Your task to perform on an android device: Search for seafood restaurants on Google Maps Image 0: 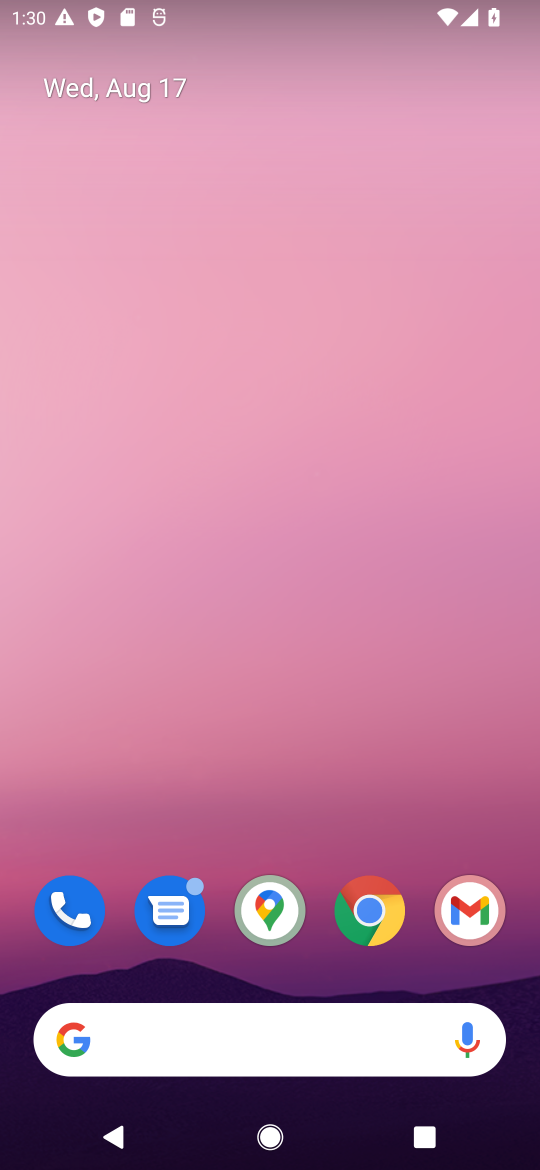
Step 0: click (269, 914)
Your task to perform on an android device: Search for seafood restaurants on Google Maps Image 1: 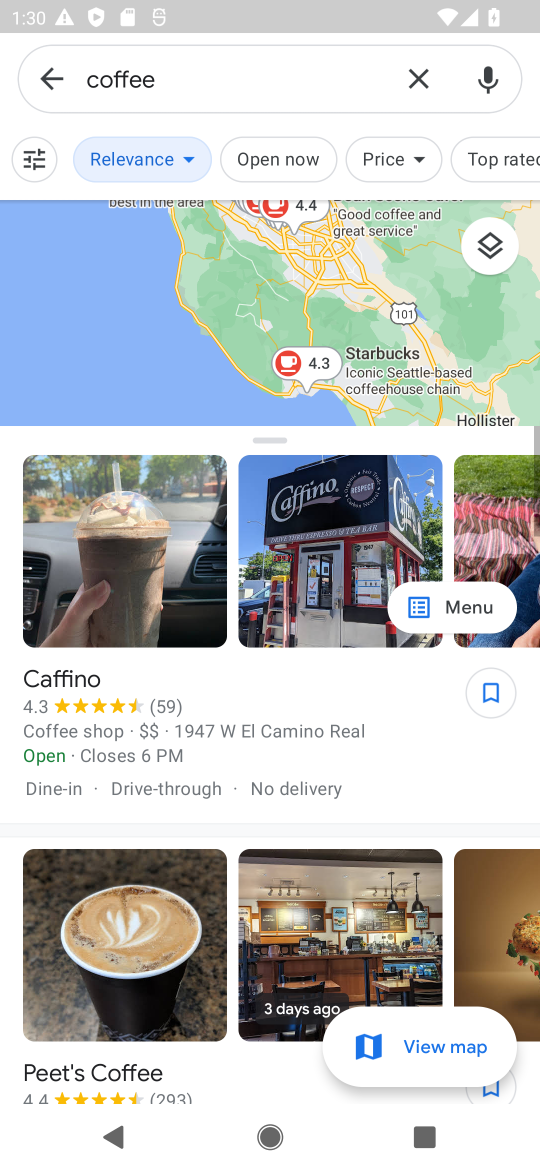
Step 1: click (402, 85)
Your task to perform on an android device: Search for seafood restaurants on Google Maps Image 2: 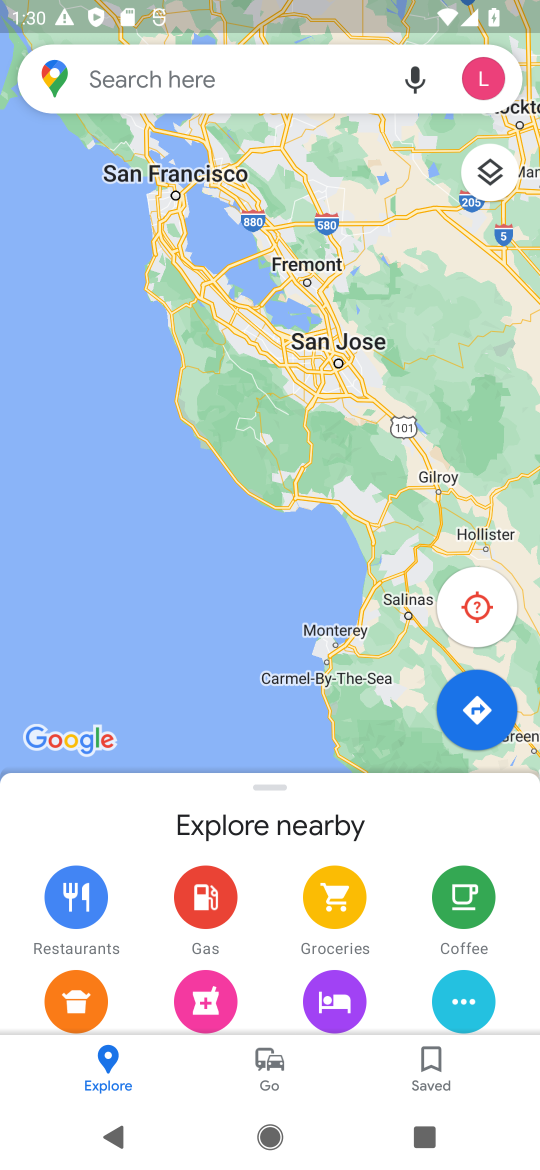
Step 2: click (168, 71)
Your task to perform on an android device: Search for seafood restaurants on Google Maps Image 3: 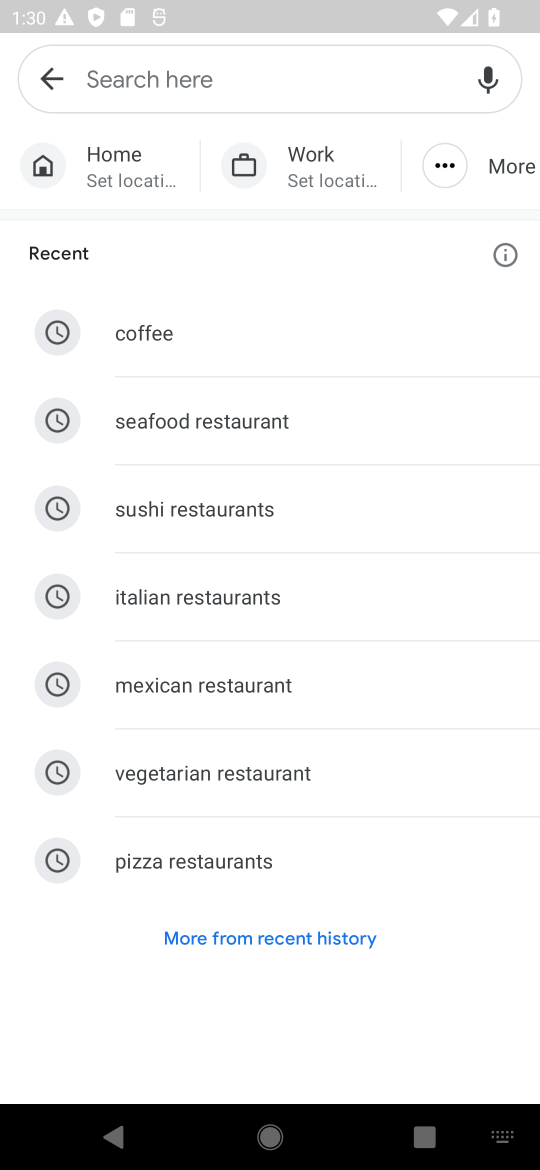
Step 3: click (142, 419)
Your task to perform on an android device: Search for seafood restaurants on Google Maps Image 4: 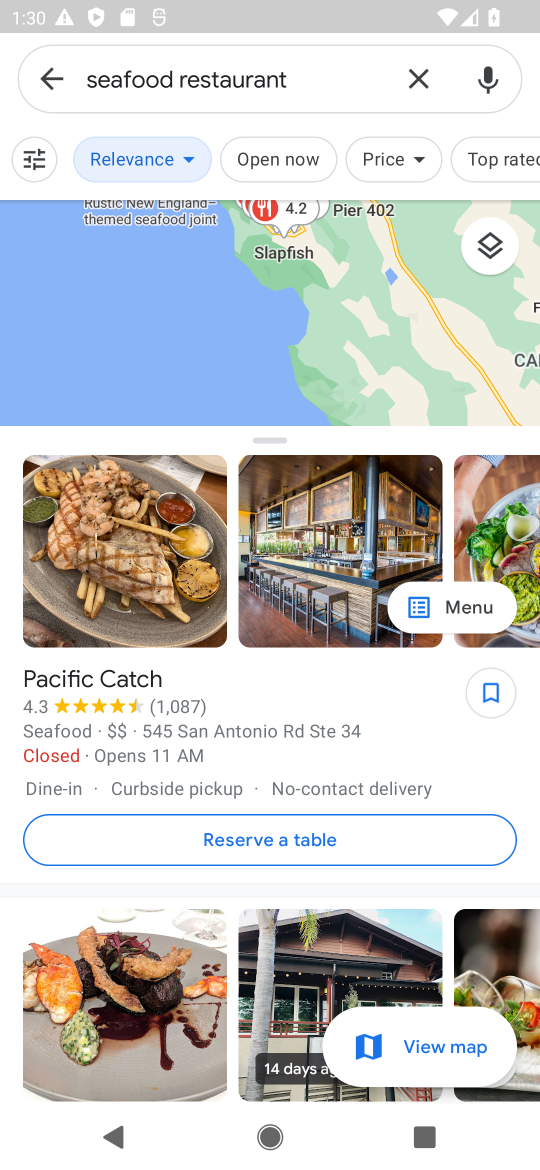
Step 4: task complete